Your task to perform on an android device: Search for sushi restaurants on Maps Image 0: 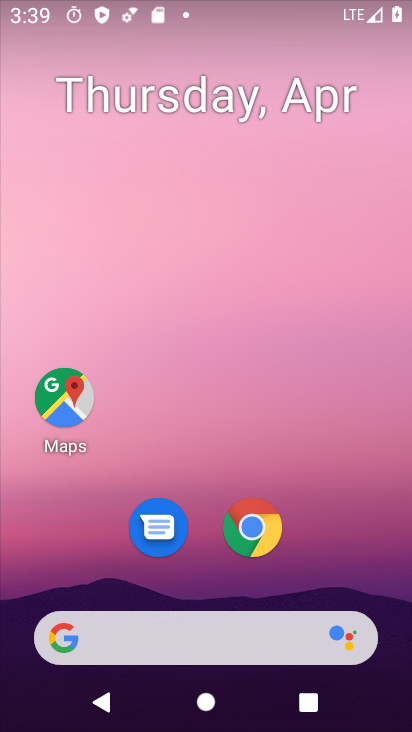
Step 0: drag from (324, 546) to (275, 95)
Your task to perform on an android device: Search for sushi restaurants on Maps Image 1: 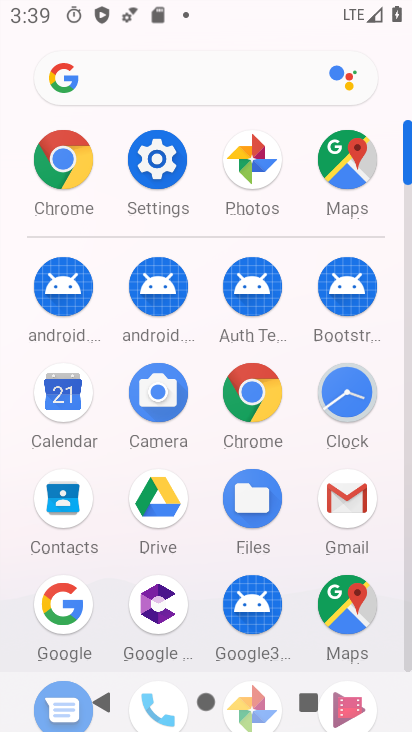
Step 1: click (354, 608)
Your task to perform on an android device: Search for sushi restaurants on Maps Image 2: 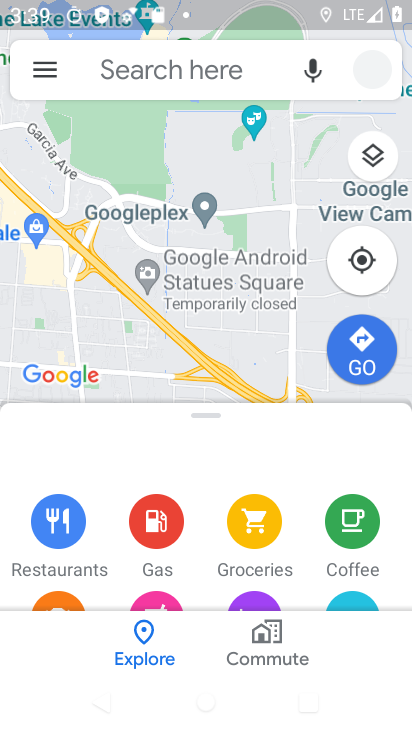
Step 2: click (170, 58)
Your task to perform on an android device: Search for sushi restaurants on Maps Image 3: 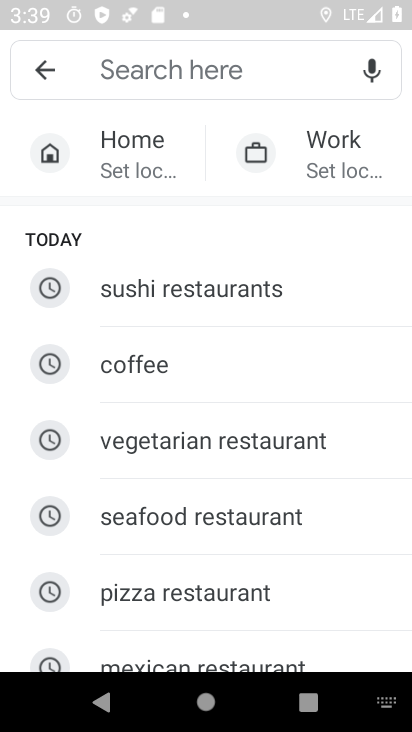
Step 3: click (229, 282)
Your task to perform on an android device: Search for sushi restaurants on Maps Image 4: 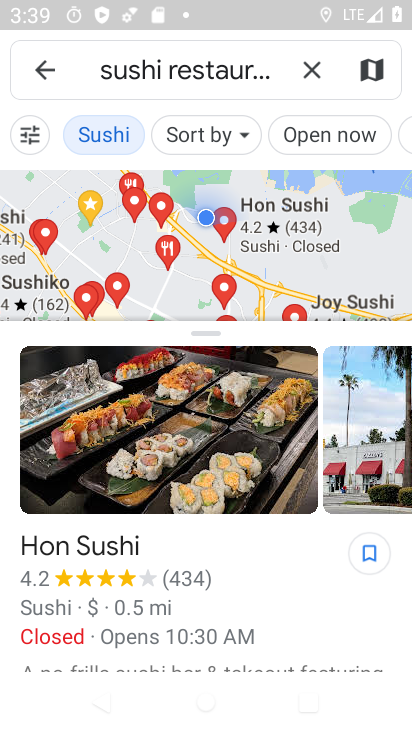
Step 4: task complete